Your task to perform on an android device: uninstall "Adobe Acrobat Reader" Image 0: 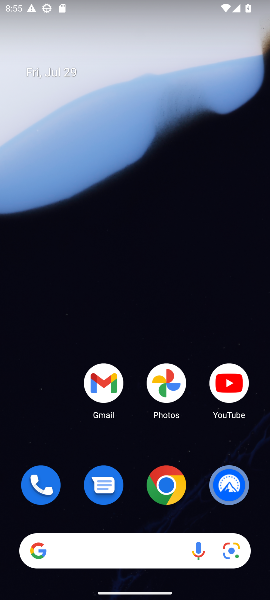
Step 0: drag from (138, 538) to (179, 109)
Your task to perform on an android device: uninstall "Adobe Acrobat Reader" Image 1: 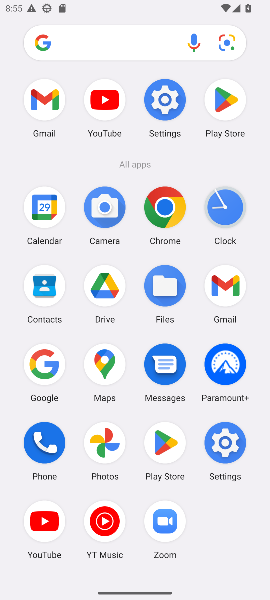
Step 1: click (164, 443)
Your task to perform on an android device: uninstall "Adobe Acrobat Reader" Image 2: 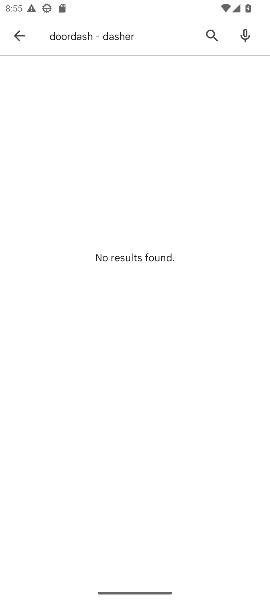
Step 2: click (232, 37)
Your task to perform on an android device: uninstall "Adobe Acrobat Reader" Image 3: 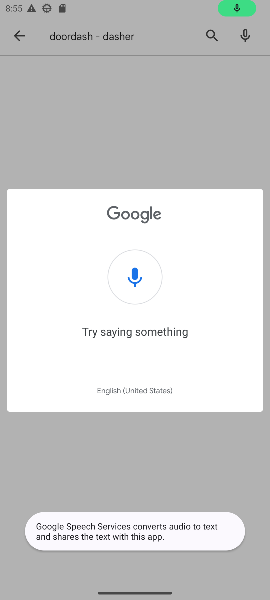
Step 3: click (215, 37)
Your task to perform on an android device: uninstall "Adobe Acrobat Reader" Image 4: 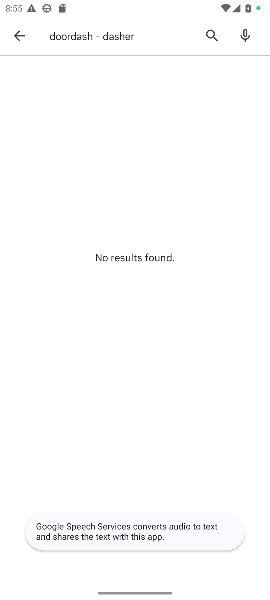
Step 4: click (216, 34)
Your task to perform on an android device: uninstall "Adobe Acrobat Reader" Image 5: 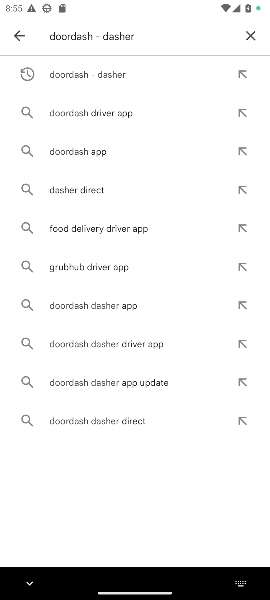
Step 5: click (252, 37)
Your task to perform on an android device: uninstall "Adobe Acrobat Reader" Image 6: 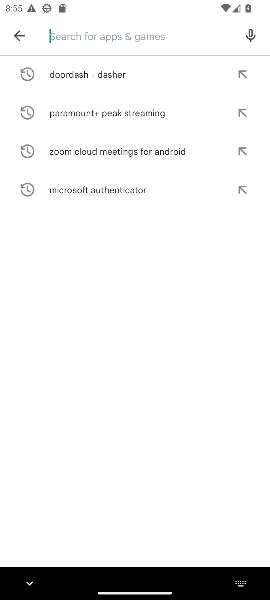
Step 6: type "Adobe Acrobat Reader"
Your task to perform on an android device: uninstall "Adobe Acrobat Reader" Image 7: 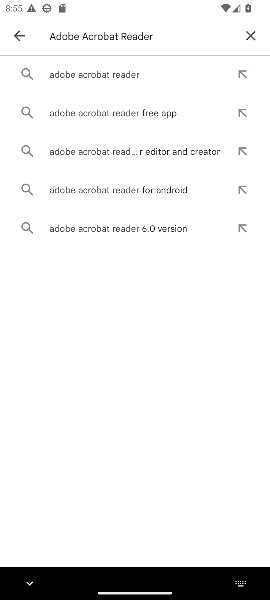
Step 7: click (84, 70)
Your task to perform on an android device: uninstall "Adobe Acrobat Reader" Image 8: 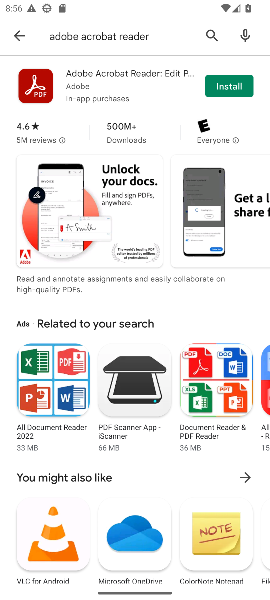
Step 8: task complete